Your task to perform on an android device: check out phone information Image 0: 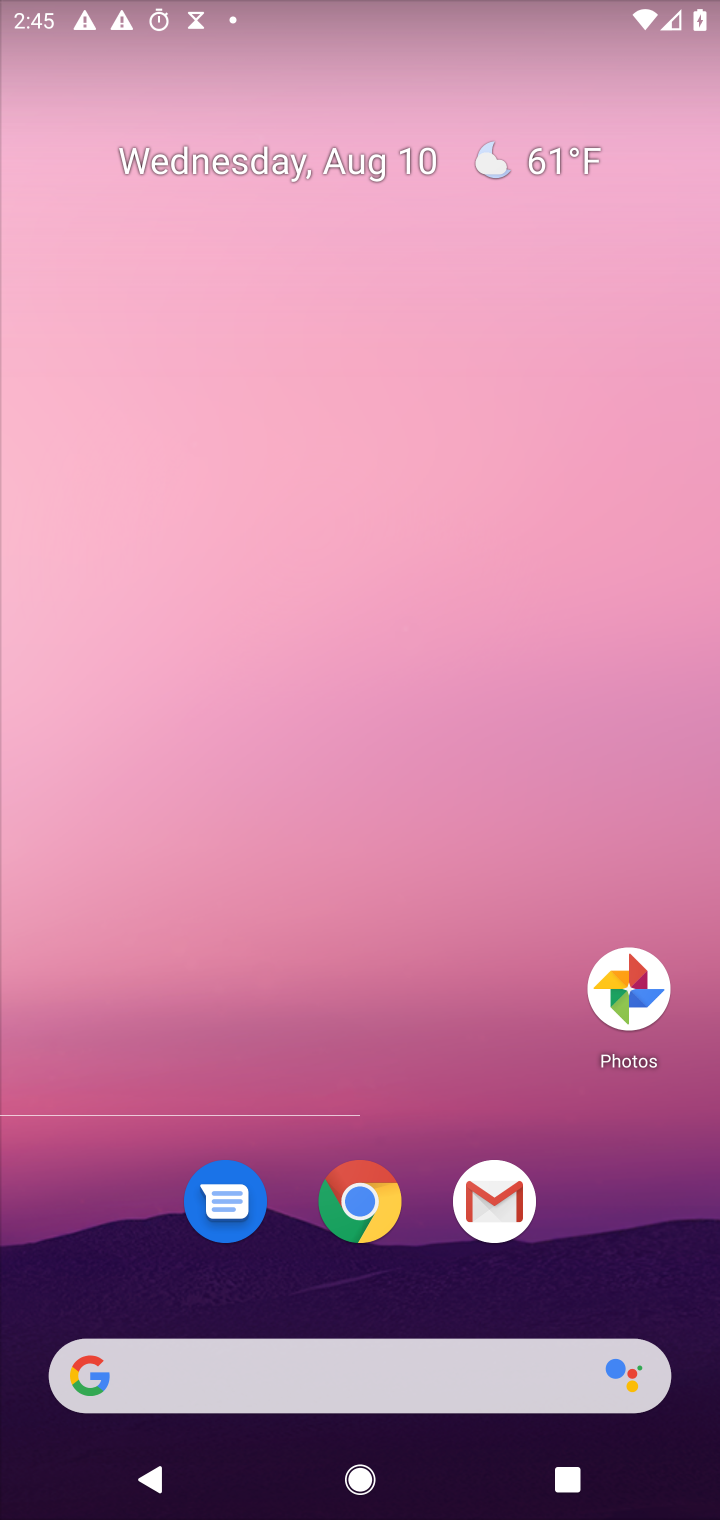
Step 0: drag from (426, 1301) to (494, 247)
Your task to perform on an android device: check out phone information Image 1: 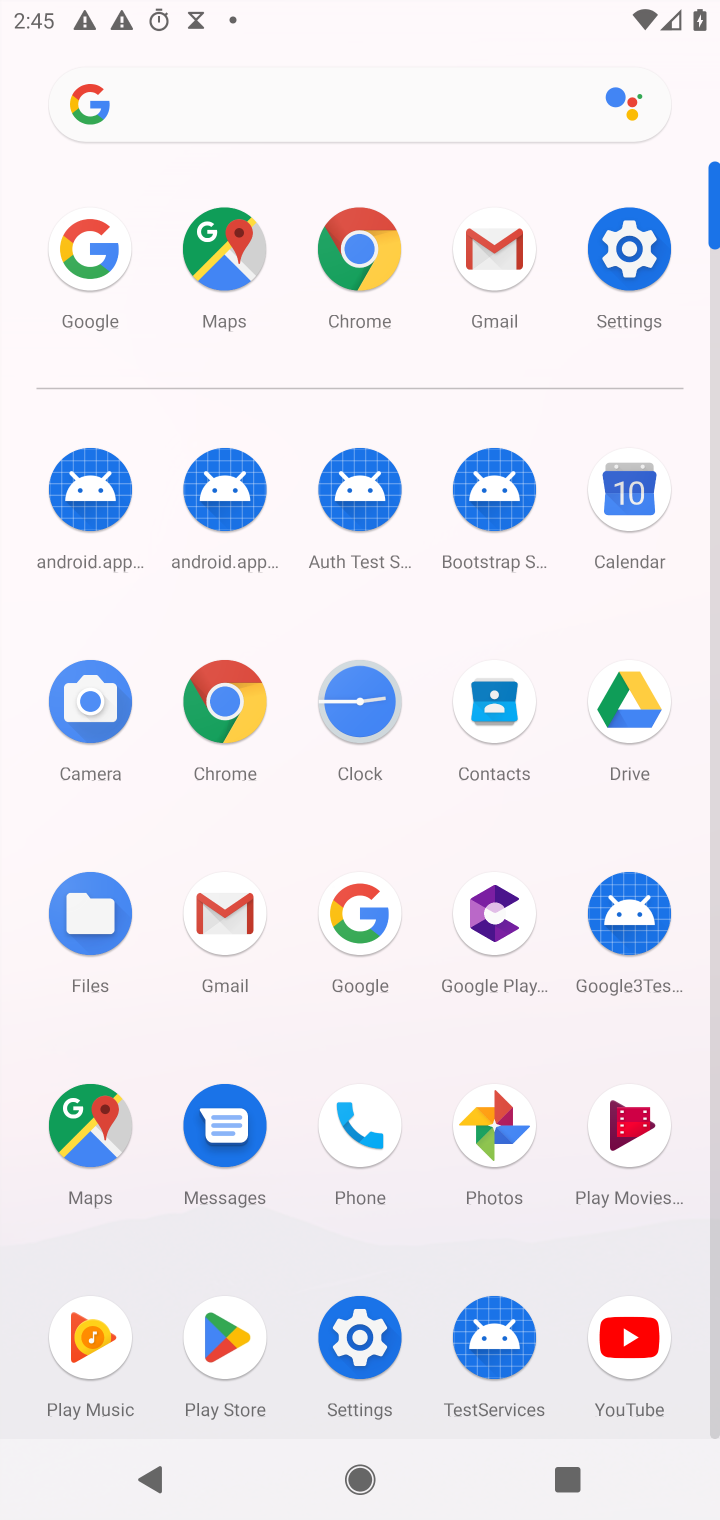
Step 1: click (628, 244)
Your task to perform on an android device: check out phone information Image 2: 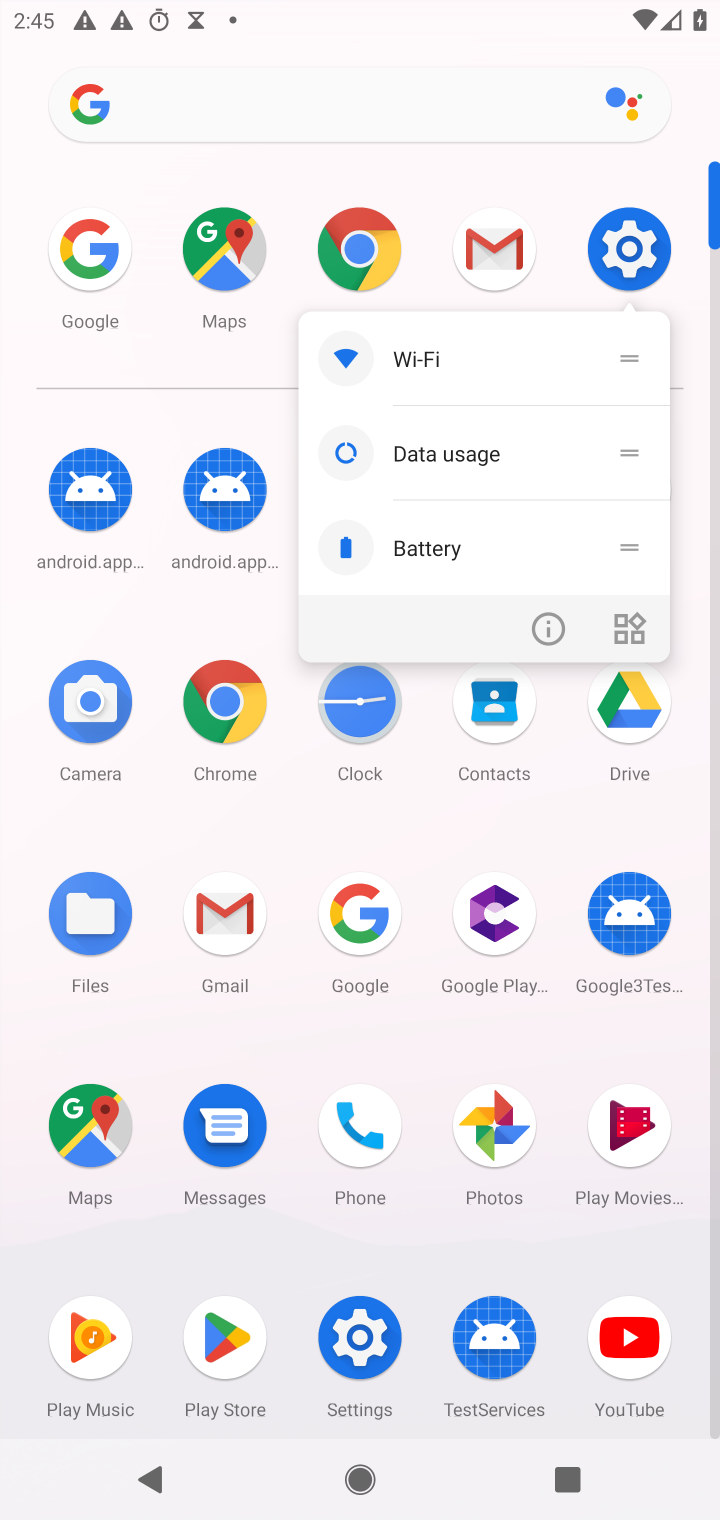
Step 2: click (628, 244)
Your task to perform on an android device: check out phone information Image 3: 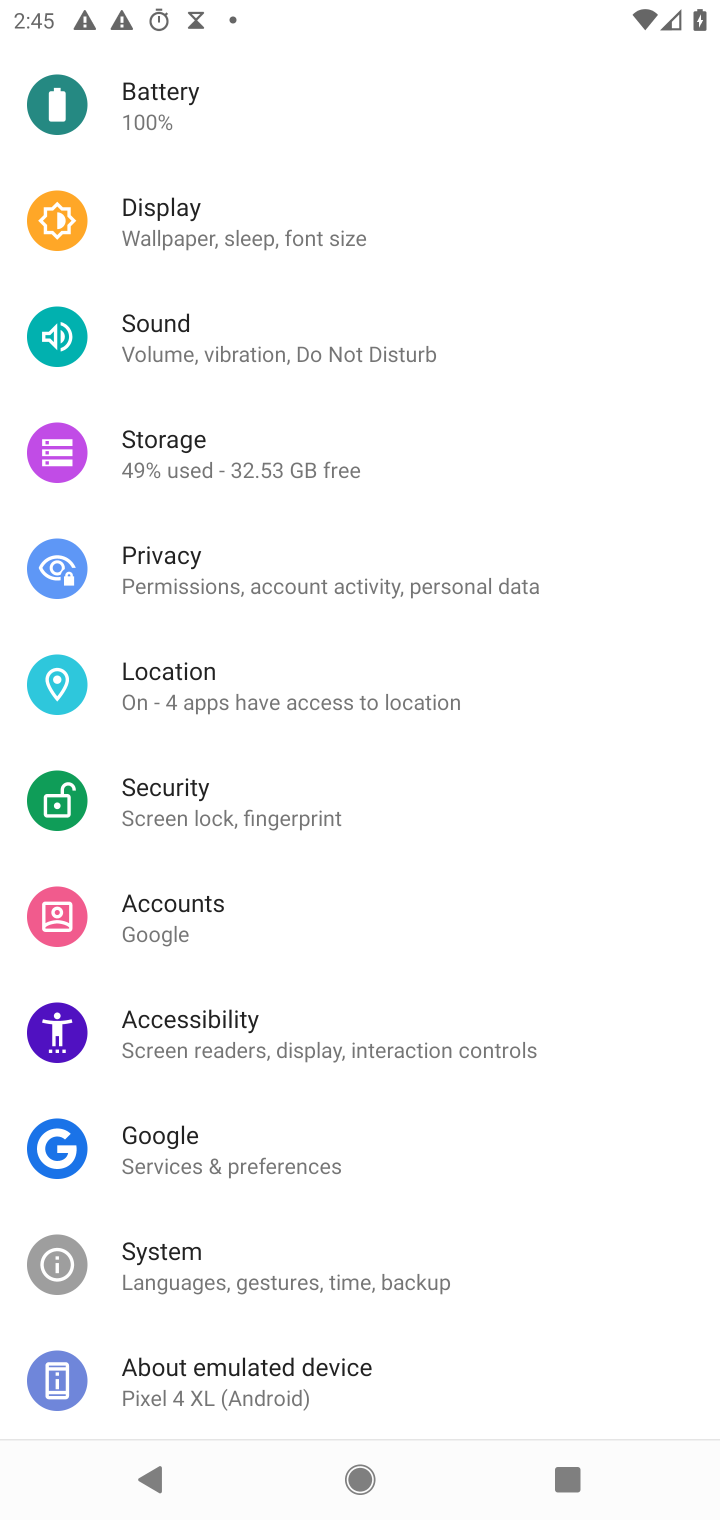
Step 3: drag from (479, 939) to (352, 296)
Your task to perform on an android device: check out phone information Image 4: 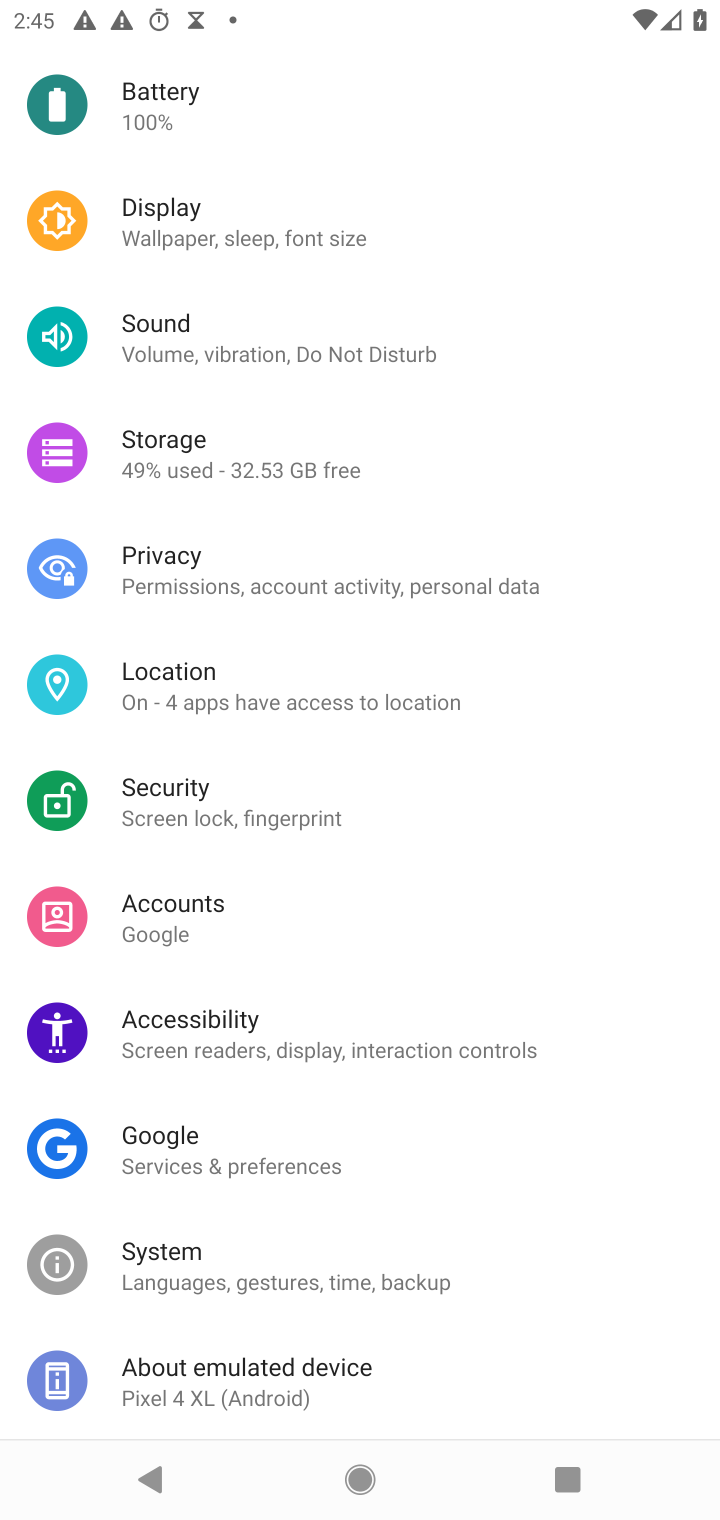
Step 4: click (198, 1371)
Your task to perform on an android device: check out phone information Image 5: 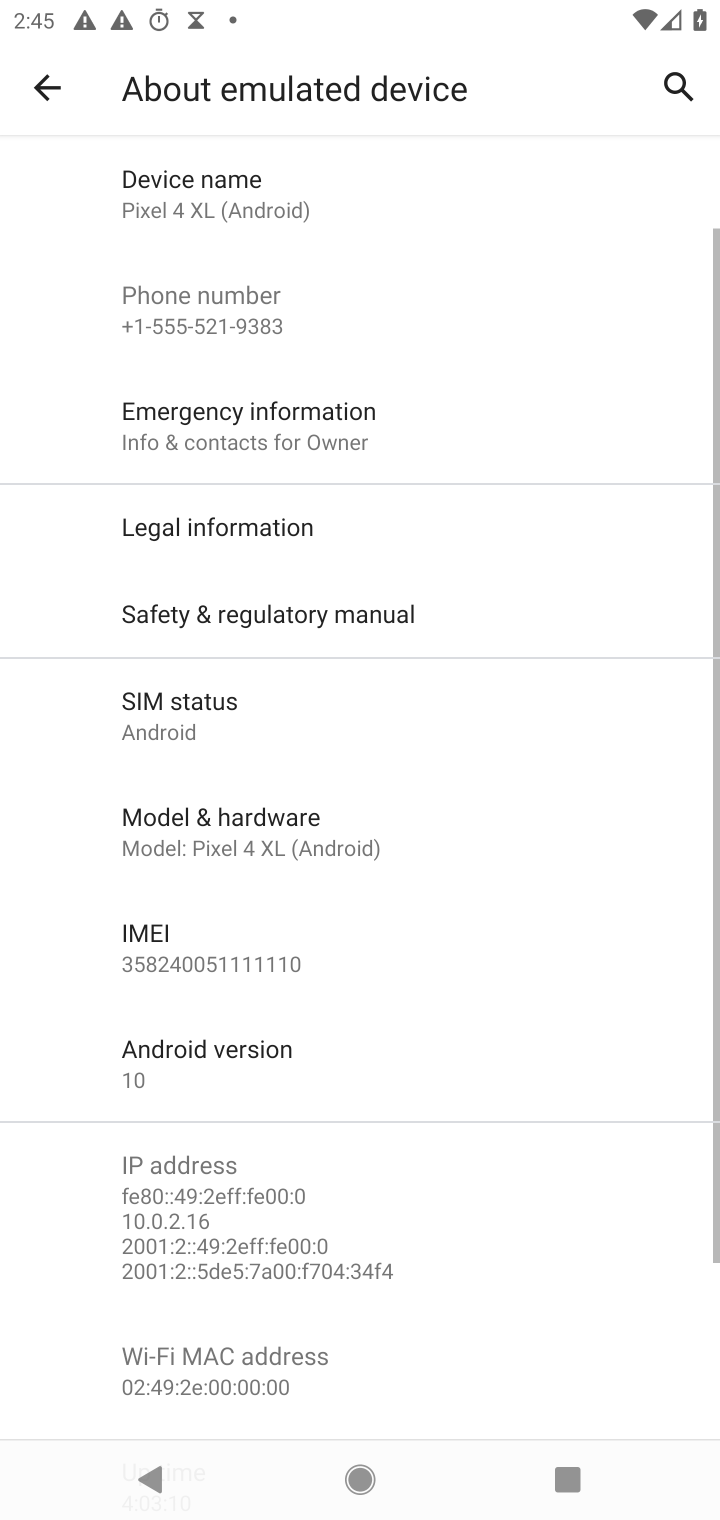
Step 5: task complete